Your task to perform on an android device: Open Maps and search for coffee Image 0: 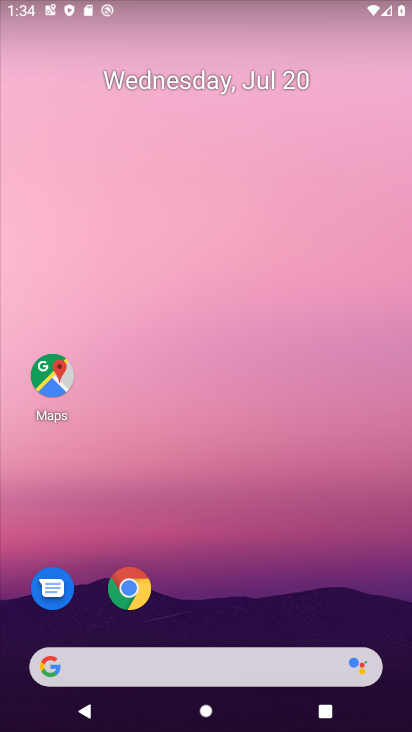
Step 0: drag from (384, 618) to (225, 38)
Your task to perform on an android device: Open Maps and search for coffee Image 1: 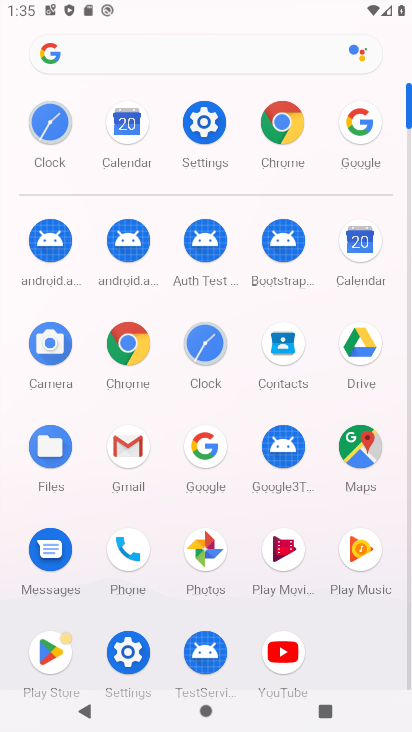
Step 1: click (344, 460)
Your task to perform on an android device: Open Maps and search for coffee Image 2: 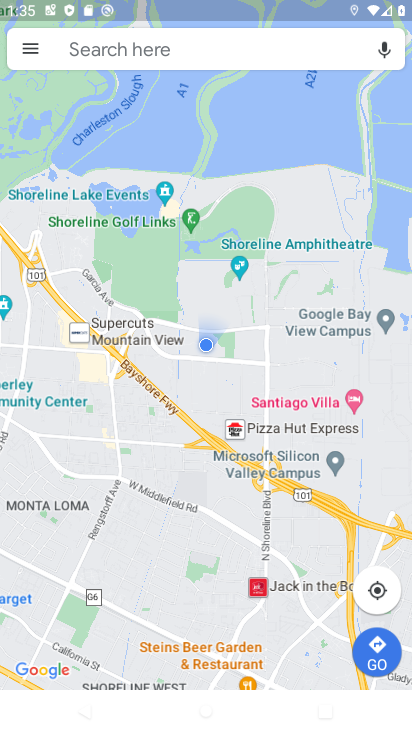
Step 2: click (115, 48)
Your task to perform on an android device: Open Maps and search for coffee Image 3: 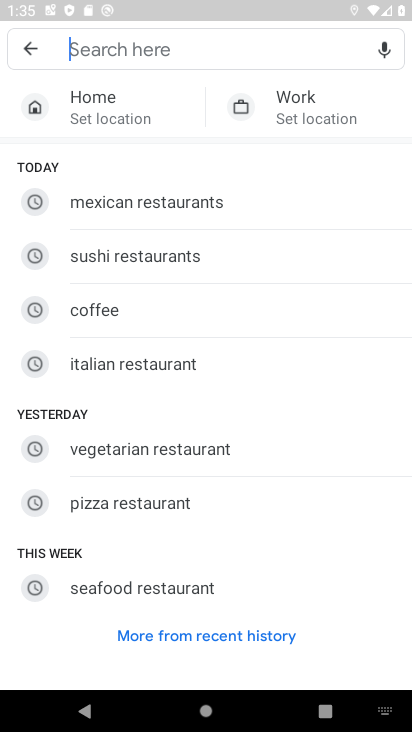
Step 3: click (115, 321)
Your task to perform on an android device: Open Maps and search for coffee Image 4: 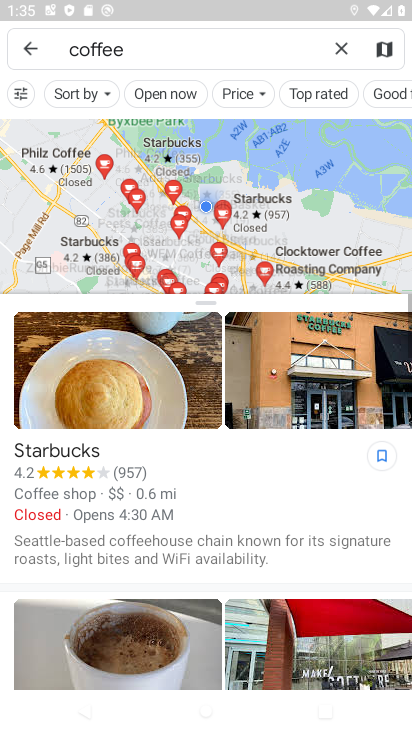
Step 4: task complete